Your task to perform on an android device: make emails show in primary in the gmail app Image 0: 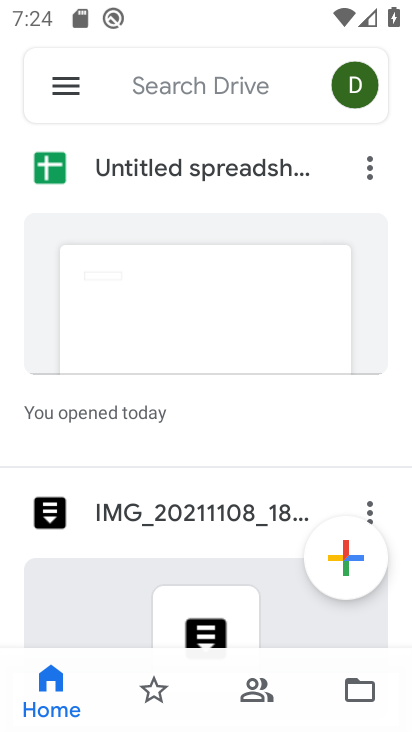
Step 0: press home button
Your task to perform on an android device: make emails show in primary in the gmail app Image 1: 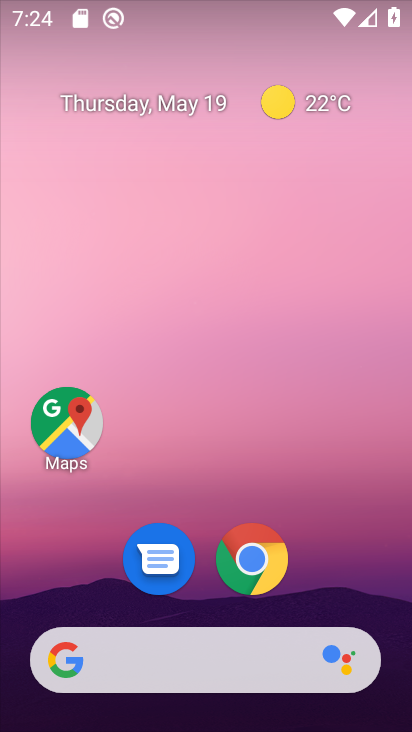
Step 1: drag from (203, 590) to (167, 26)
Your task to perform on an android device: make emails show in primary in the gmail app Image 2: 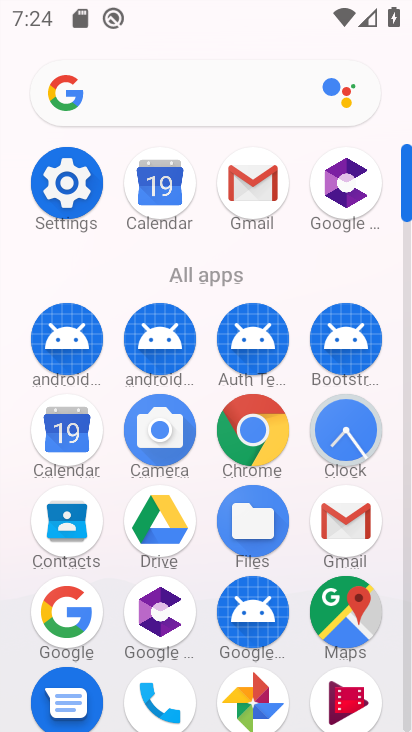
Step 2: click (244, 189)
Your task to perform on an android device: make emails show in primary in the gmail app Image 3: 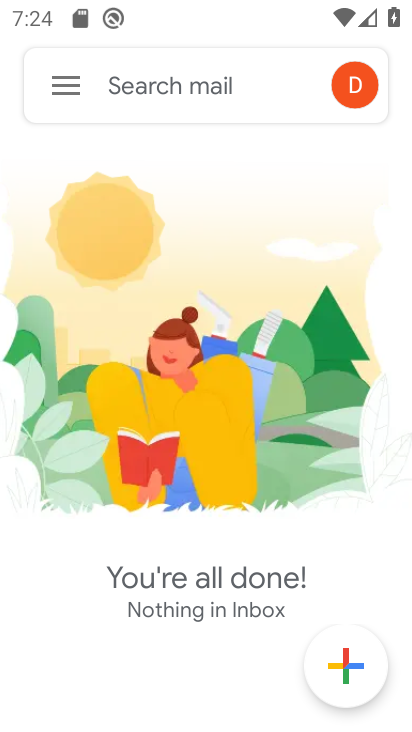
Step 3: click (64, 74)
Your task to perform on an android device: make emails show in primary in the gmail app Image 4: 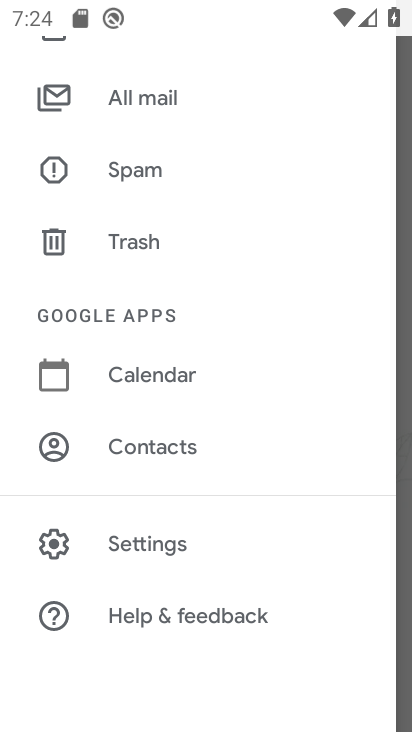
Step 4: click (144, 553)
Your task to perform on an android device: make emails show in primary in the gmail app Image 5: 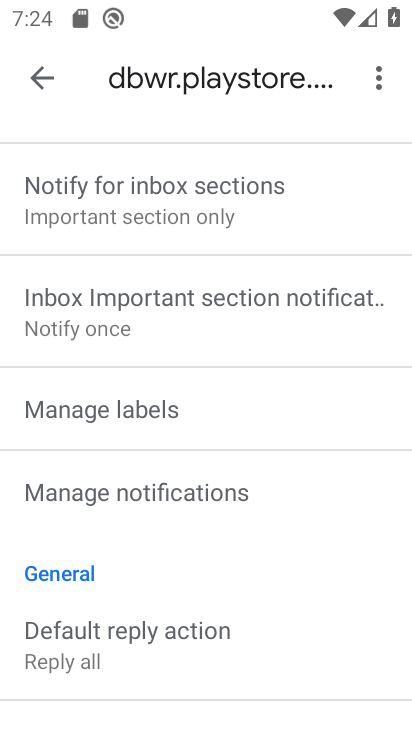
Step 5: drag from (165, 196) to (212, 656)
Your task to perform on an android device: make emails show in primary in the gmail app Image 6: 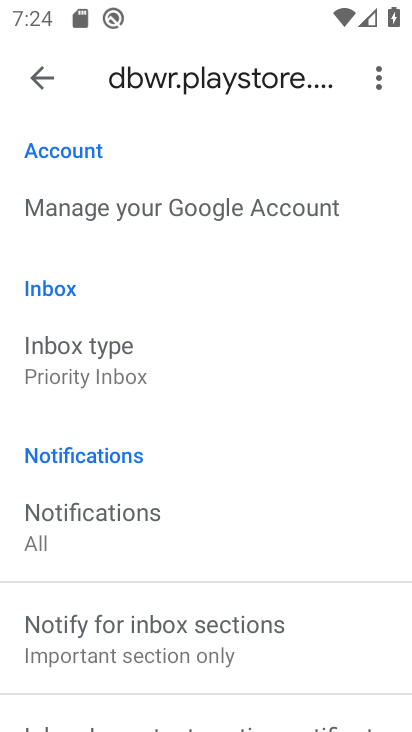
Step 6: click (95, 368)
Your task to perform on an android device: make emails show in primary in the gmail app Image 7: 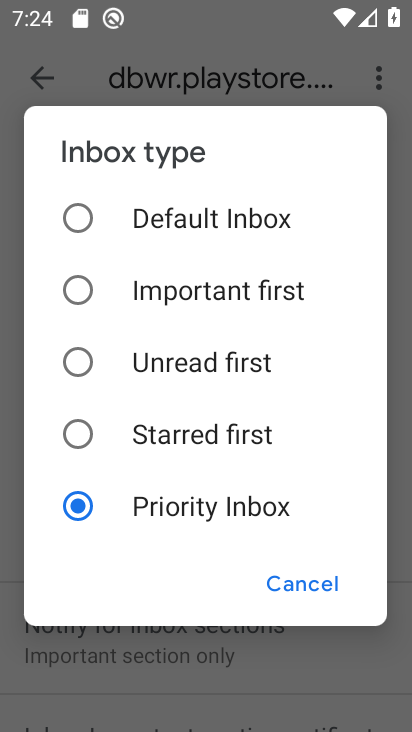
Step 7: click (174, 203)
Your task to perform on an android device: make emails show in primary in the gmail app Image 8: 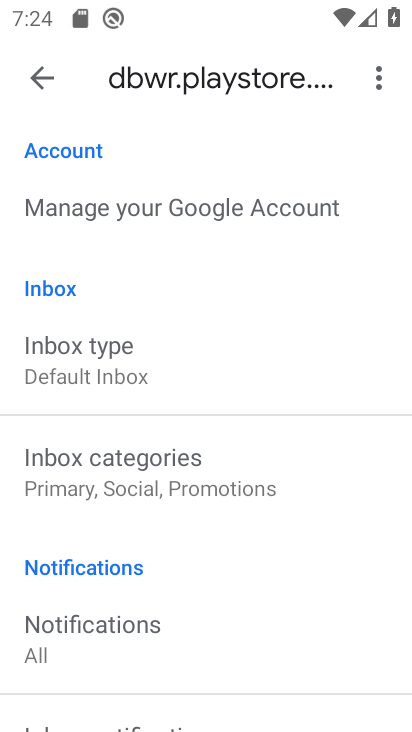
Step 8: task complete